Your task to perform on an android device: Play the last video I watched on Youtube Image 0: 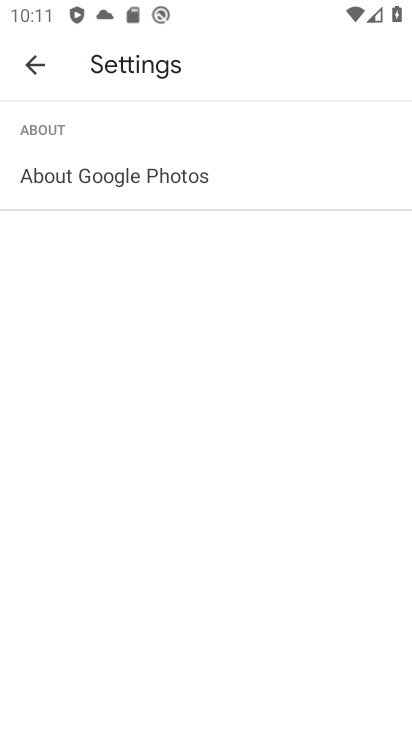
Step 0: press home button
Your task to perform on an android device: Play the last video I watched on Youtube Image 1: 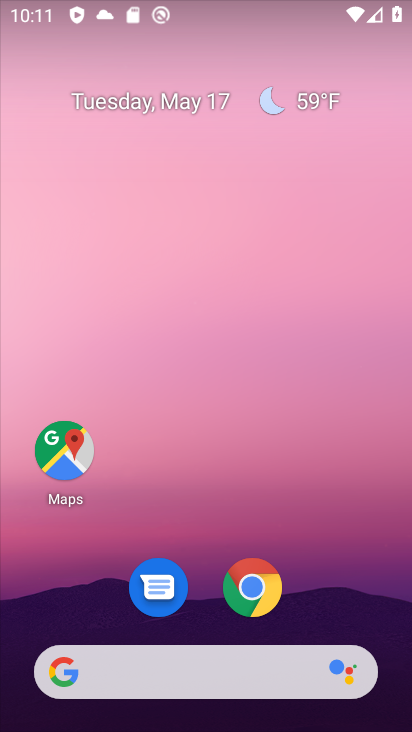
Step 1: drag from (338, 602) to (286, 356)
Your task to perform on an android device: Play the last video I watched on Youtube Image 2: 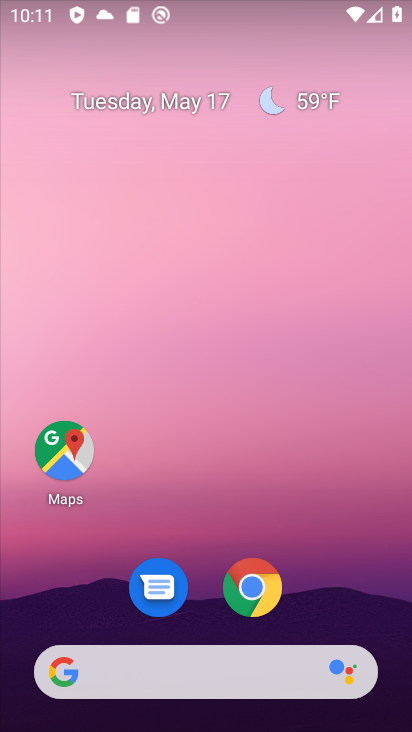
Step 2: drag from (229, 528) to (210, 225)
Your task to perform on an android device: Play the last video I watched on Youtube Image 3: 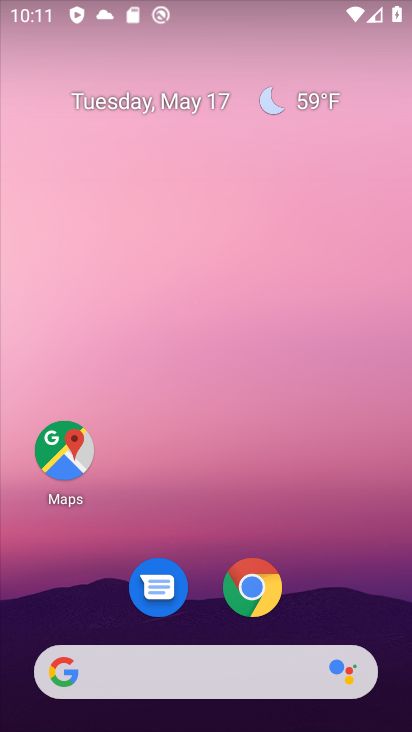
Step 3: drag from (328, 578) to (247, 155)
Your task to perform on an android device: Play the last video I watched on Youtube Image 4: 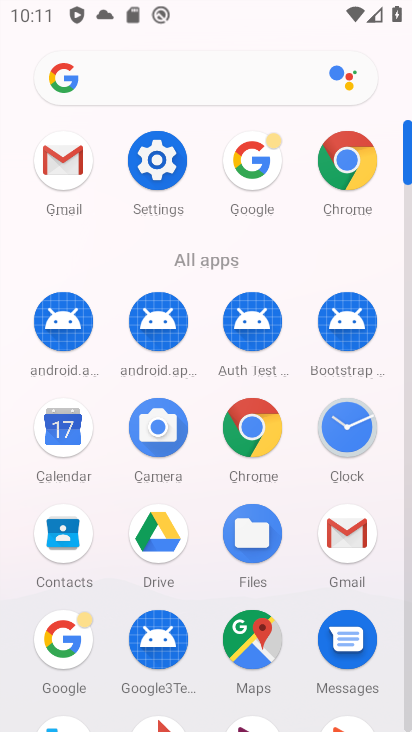
Step 4: drag from (190, 579) to (166, 322)
Your task to perform on an android device: Play the last video I watched on Youtube Image 5: 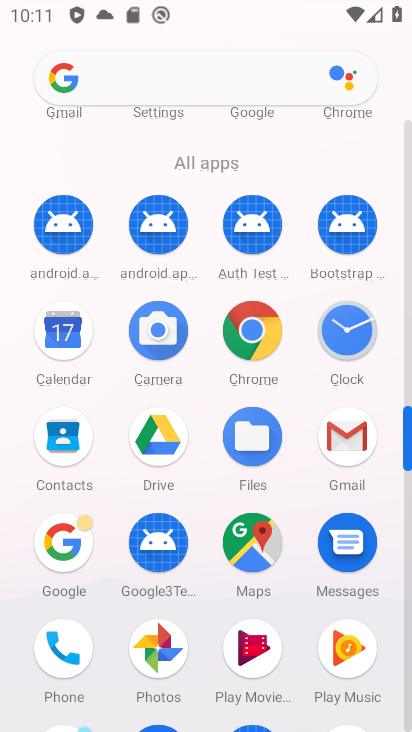
Step 5: drag from (204, 624) to (203, 252)
Your task to perform on an android device: Play the last video I watched on Youtube Image 6: 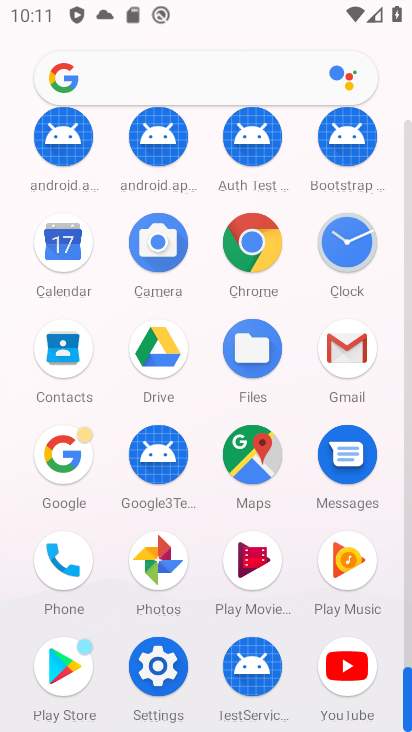
Step 6: click (347, 673)
Your task to perform on an android device: Play the last video I watched on Youtube Image 7: 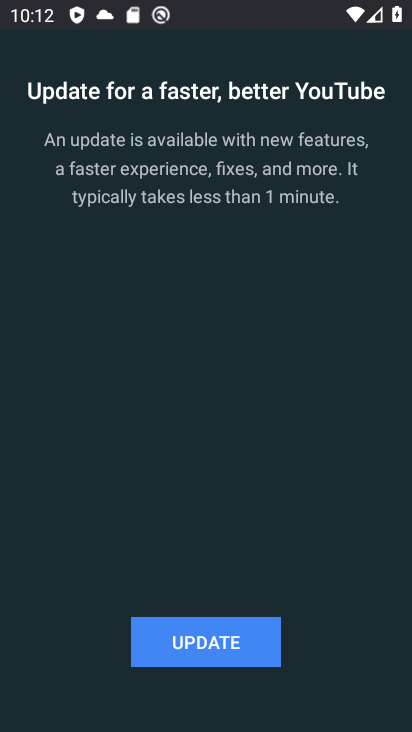
Step 7: click (250, 633)
Your task to perform on an android device: Play the last video I watched on Youtube Image 8: 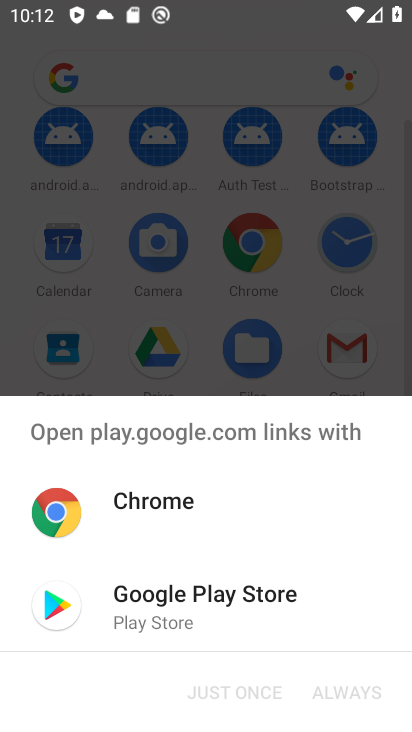
Step 8: click (216, 597)
Your task to perform on an android device: Play the last video I watched on Youtube Image 9: 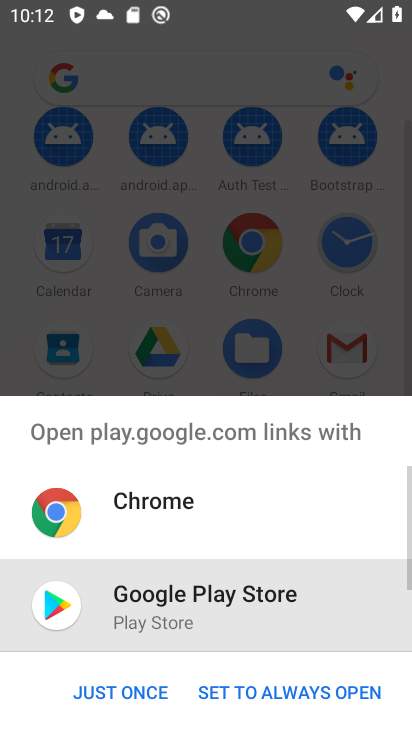
Step 9: click (139, 689)
Your task to perform on an android device: Play the last video I watched on Youtube Image 10: 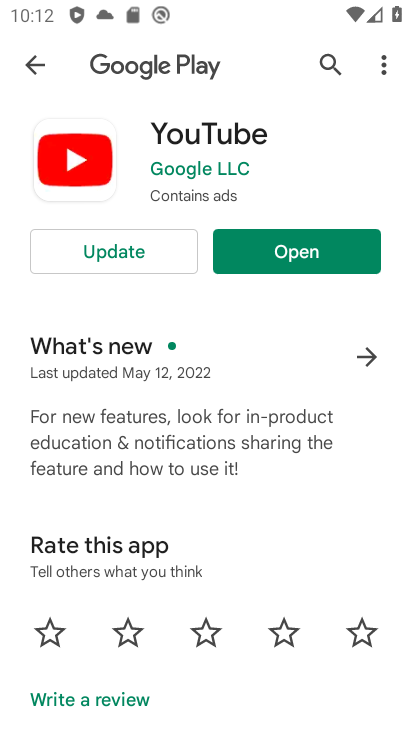
Step 10: click (165, 251)
Your task to perform on an android device: Play the last video I watched on Youtube Image 11: 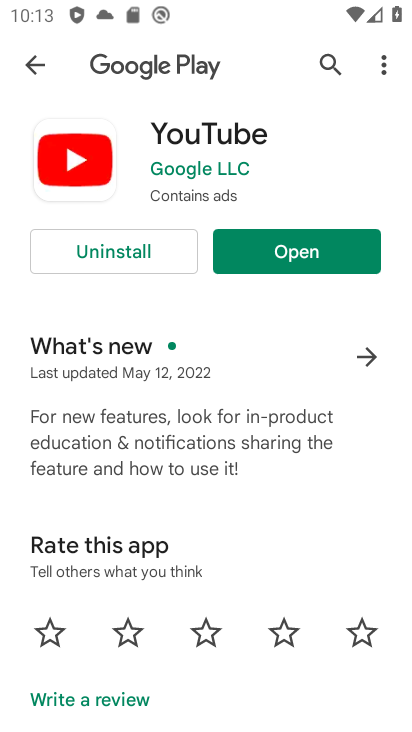
Step 11: click (325, 244)
Your task to perform on an android device: Play the last video I watched on Youtube Image 12: 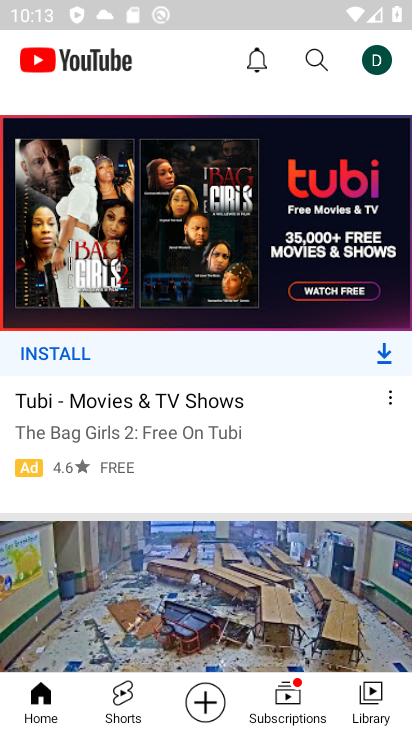
Step 12: click (369, 686)
Your task to perform on an android device: Play the last video I watched on Youtube Image 13: 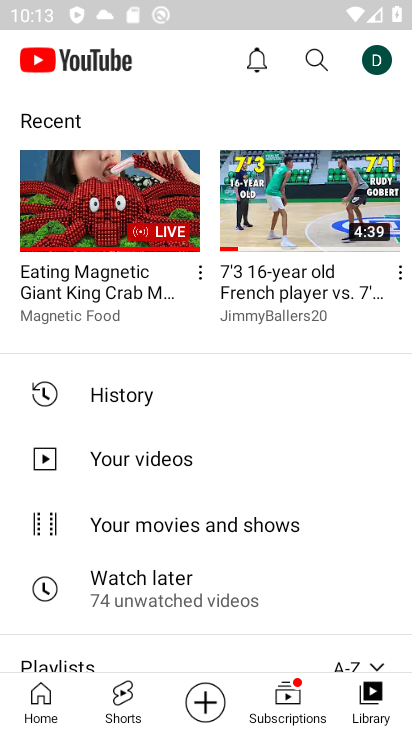
Step 13: click (96, 227)
Your task to perform on an android device: Play the last video I watched on Youtube Image 14: 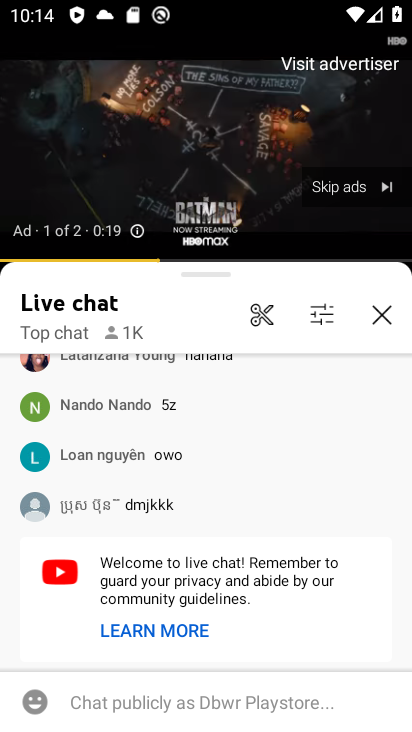
Step 14: task complete